Your task to perform on an android device: change your default location settings in chrome Image 0: 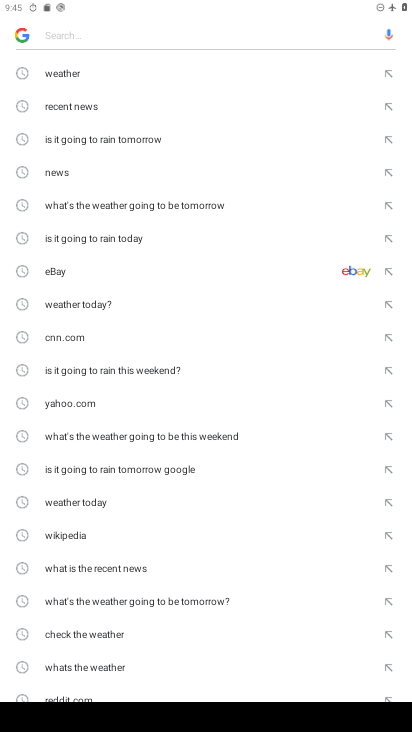
Step 0: press home button
Your task to perform on an android device: change your default location settings in chrome Image 1: 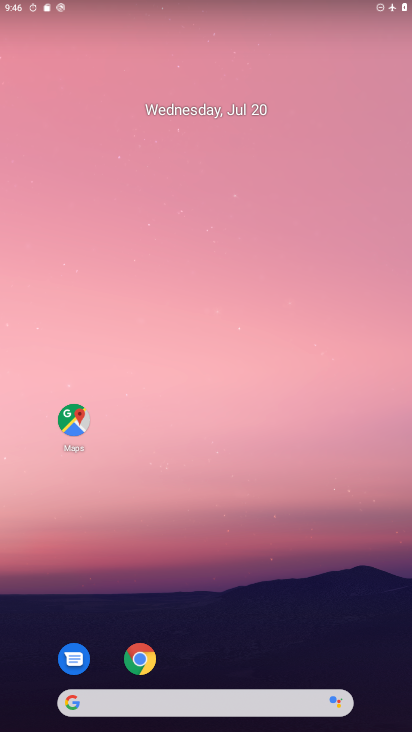
Step 1: drag from (284, 637) to (156, 98)
Your task to perform on an android device: change your default location settings in chrome Image 2: 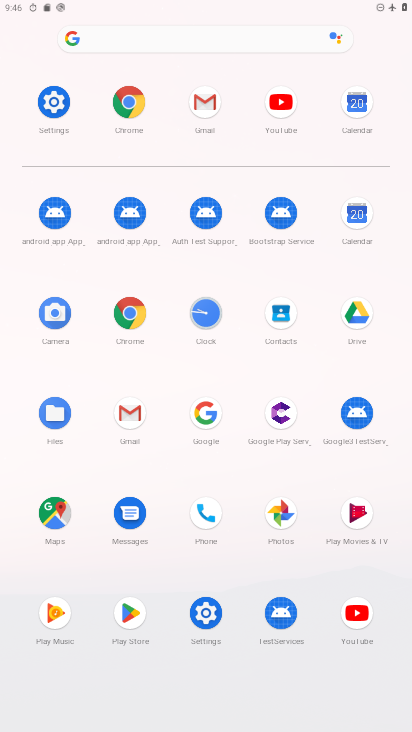
Step 2: click (133, 98)
Your task to perform on an android device: change your default location settings in chrome Image 3: 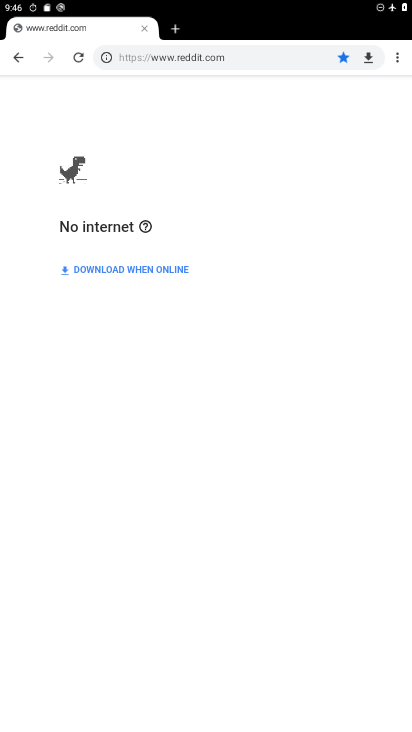
Step 3: drag from (397, 44) to (263, 349)
Your task to perform on an android device: change your default location settings in chrome Image 4: 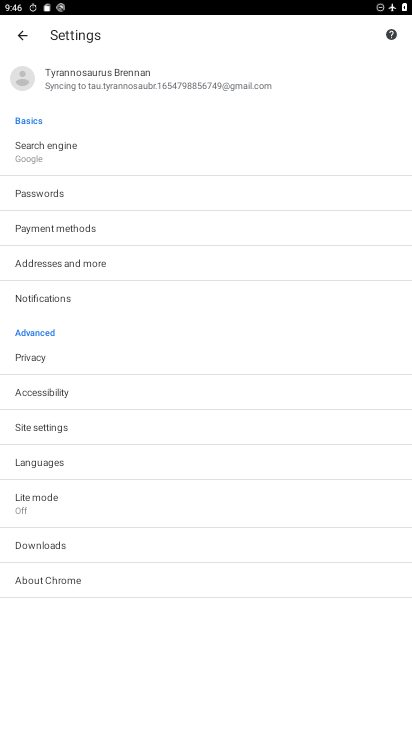
Step 4: click (39, 431)
Your task to perform on an android device: change your default location settings in chrome Image 5: 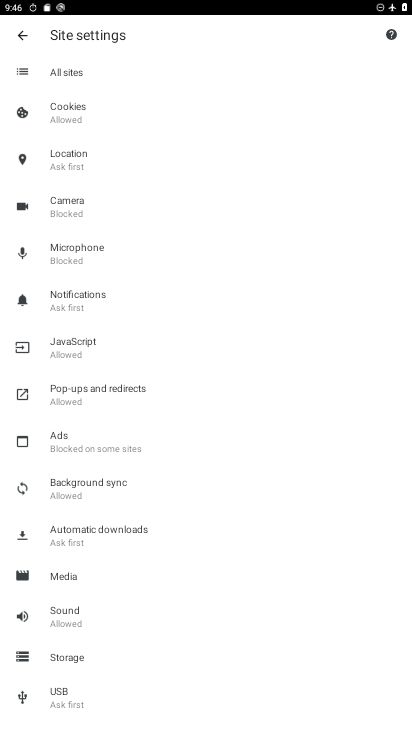
Step 5: click (76, 159)
Your task to perform on an android device: change your default location settings in chrome Image 6: 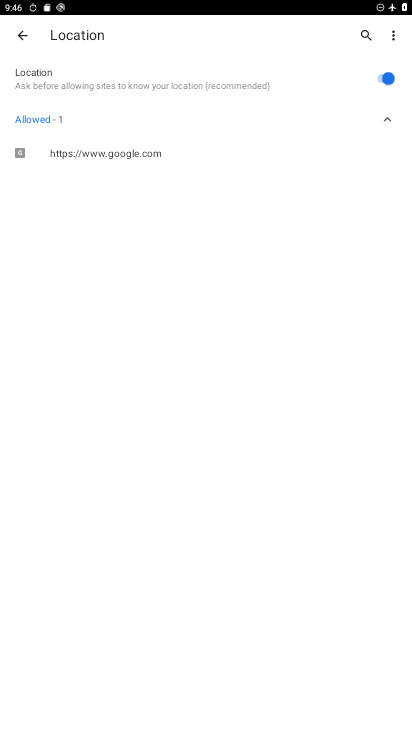
Step 6: click (373, 71)
Your task to perform on an android device: change your default location settings in chrome Image 7: 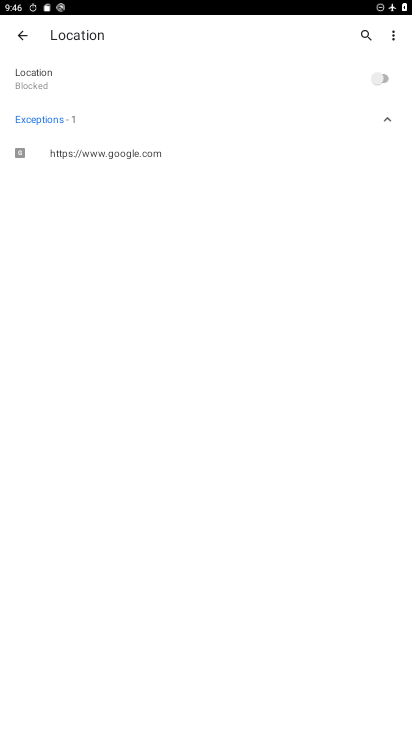
Step 7: task complete